Your task to perform on an android device: View the shopping cart on ebay.com. Search for usb-a to usb-b on ebay.com, select the first entry, and add it to the cart. Image 0: 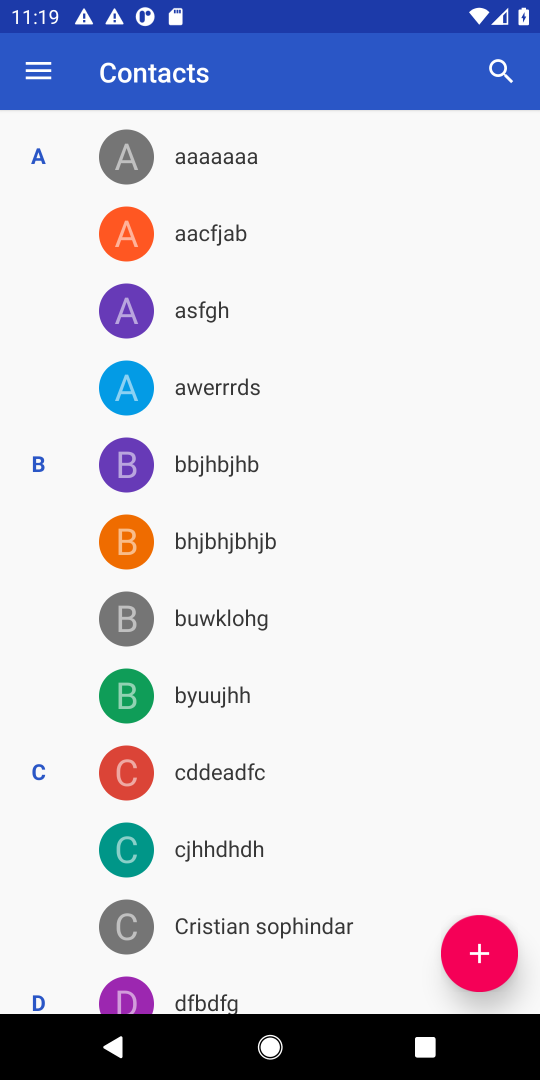
Step 0: press home button
Your task to perform on an android device: View the shopping cart on ebay.com. Search for usb-a to usb-b on ebay.com, select the first entry, and add it to the cart. Image 1: 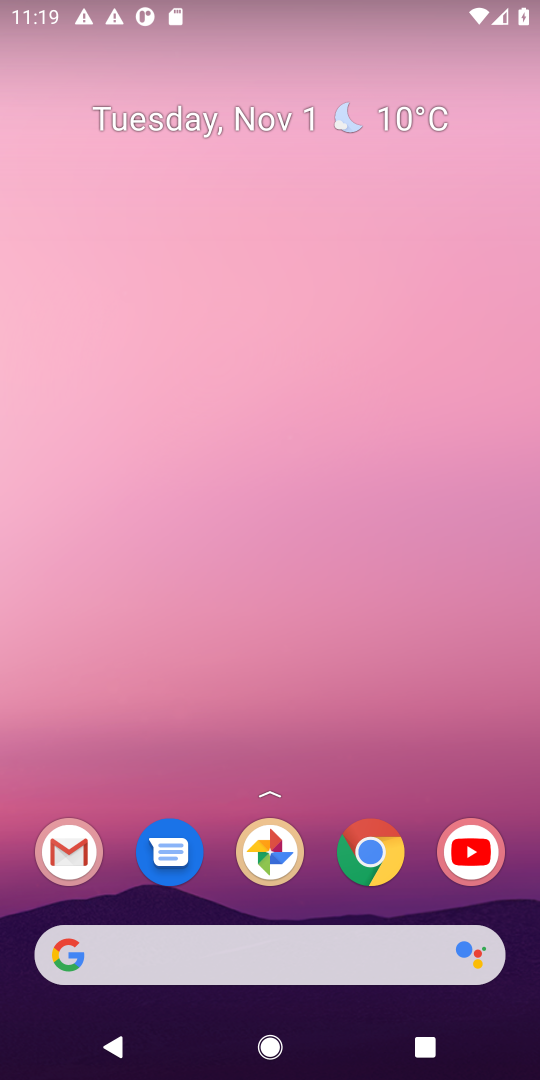
Step 1: click (60, 952)
Your task to perform on an android device: View the shopping cart on ebay.com. Search for usb-a to usb-b on ebay.com, select the first entry, and add it to the cart. Image 2: 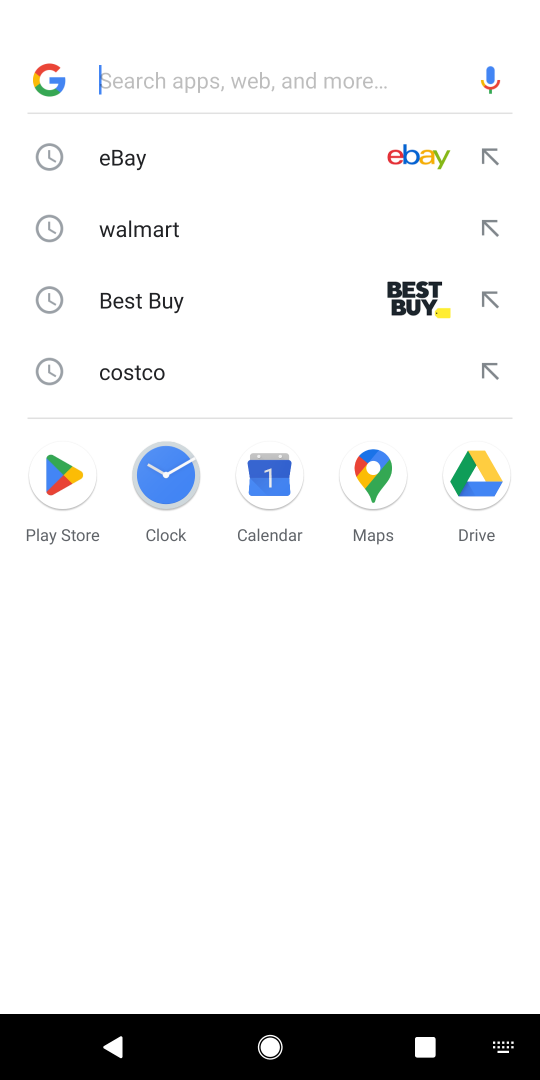
Step 2: click (406, 157)
Your task to perform on an android device: View the shopping cart on ebay.com. Search for usb-a to usb-b on ebay.com, select the first entry, and add it to the cart. Image 3: 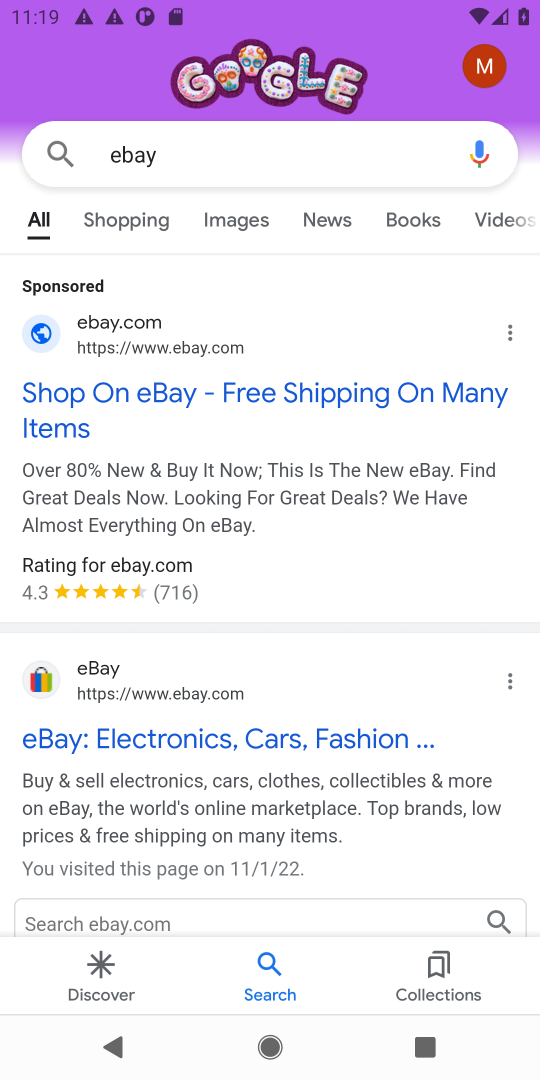
Step 3: click (104, 736)
Your task to perform on an android device: View the shopping cart on ebay.com. Search for usb-a to usb-b on ebay.com, select the first entry, and add it to the cart. Image 4: 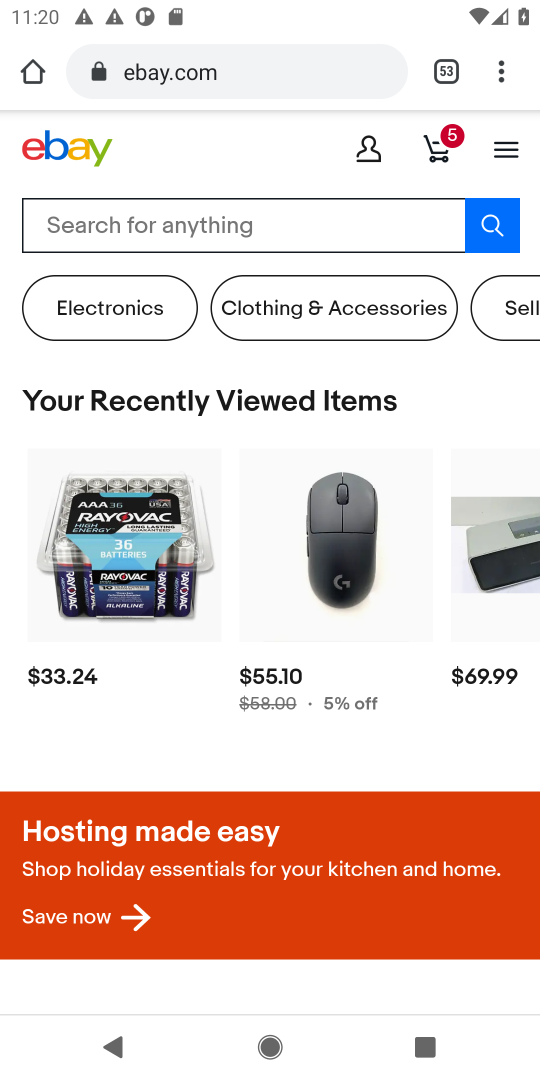
Step 4: click (77, 228)
Your task to perform on an android device: View the shopping cart on ebay.com. Search for usb-a to usb-b on ebay.com, select the first entry, and add it to the cart. Image 5: 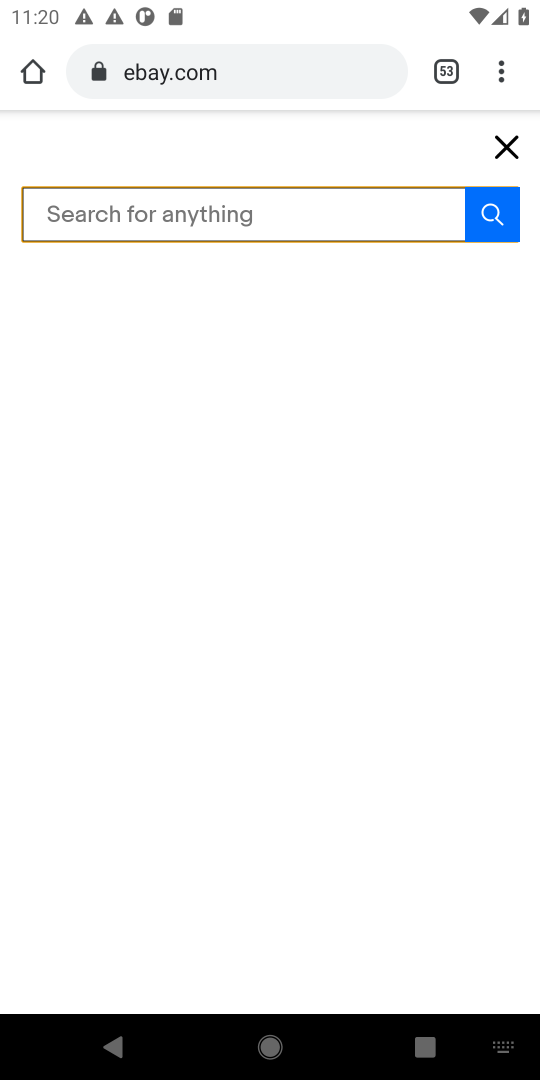
Step 5: type "usb-a to usb-b "
Your task to perform on an android device: View the shopping cart on ebay.com. Search for usb-a to usb-b on ebay.com, select the first entry, and add it to the cart. Image 6: 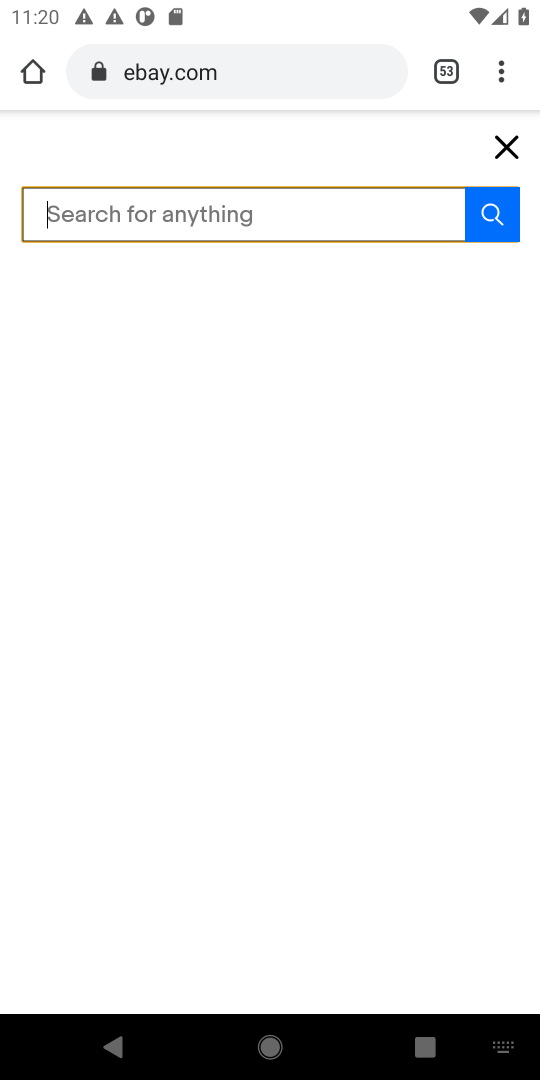
Step 6: click (188, 206)
Your task to perform on an android device: View the shopping cart on ebay.com. Search for usb-a to usb-b on ebay.com, select the first entry, and add it to the cart. Image 7: 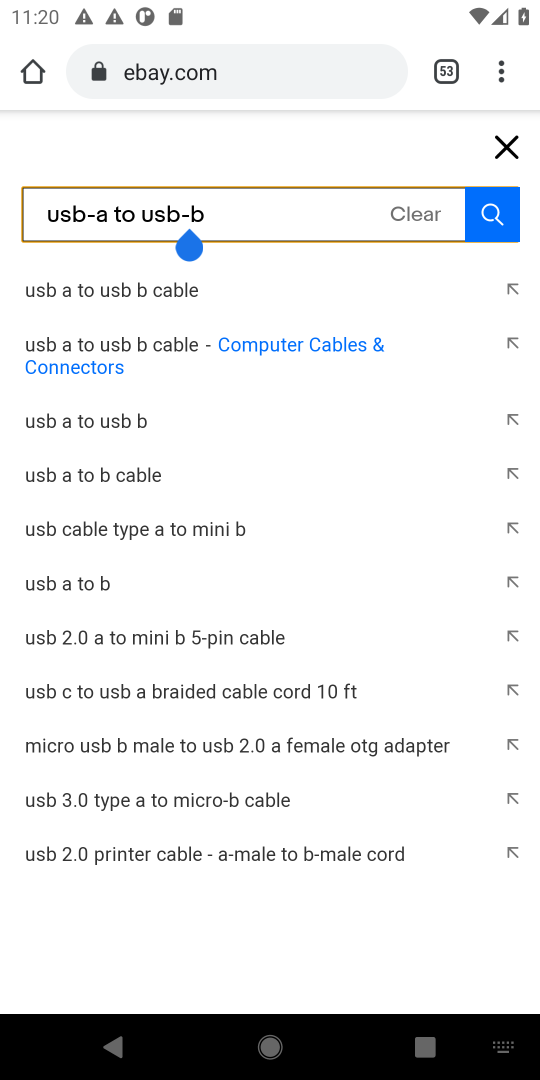
Step 7: press enter
Your task to perform on an android device: View the shopping cart on ebay.com. Search for usb-a to usb-b on ebay.com, select the first entry, and add it to the cart. Image 8: 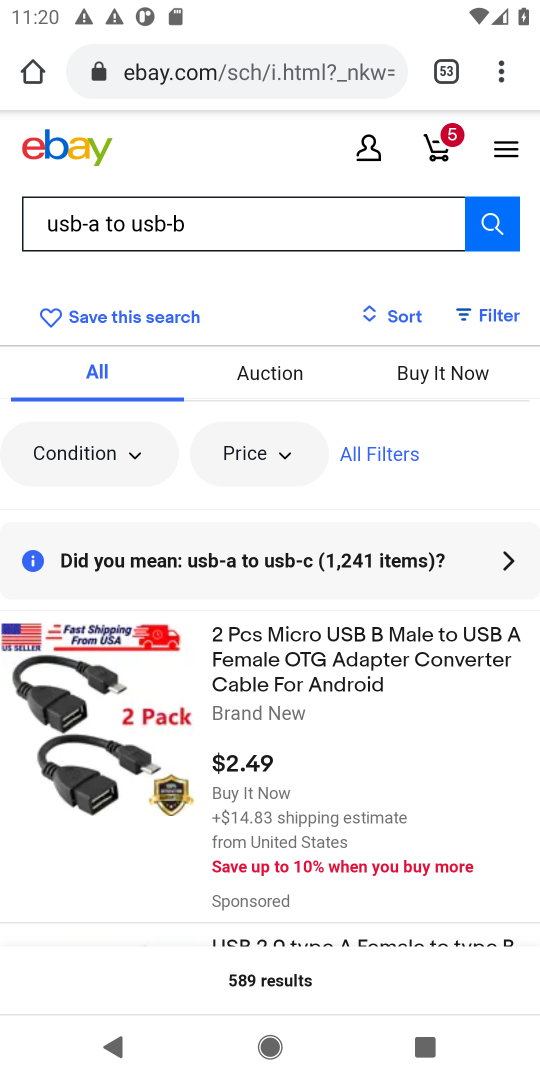
Step 8: drag from (429, 885) to (402, 315)
Your task to perform on an android device: View the shopping cart on ebay.com. Search for usb-a to usb-b on ebay.com, select the first entry, and add it to the cart. Image 9: 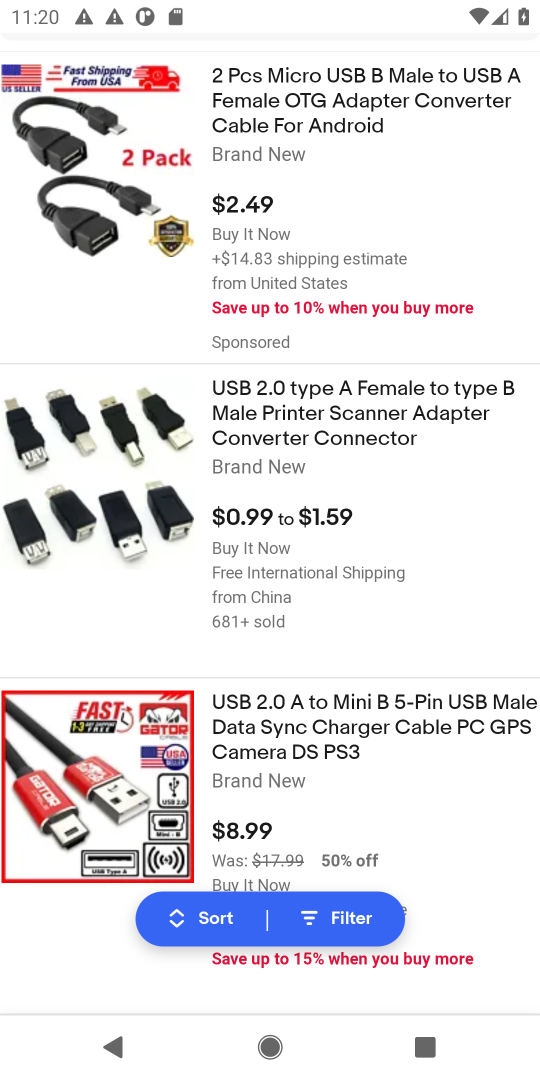
Step 9: click (409, 385)
Your task to perform on an android device: View the shopping cart on ebay.com. Search for usb-a to usb-b on ebay.com, select the first entry, and add it to the cart. Image 10: 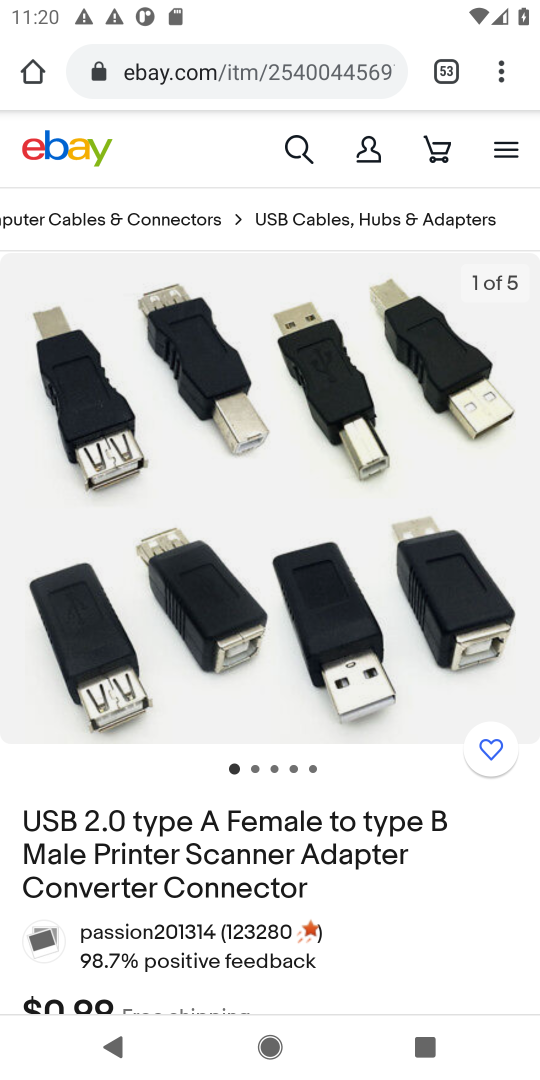
Step 10: drag from (456, 922) to (422, 146)
Your task to perform on an android device: View the shopping cart on ebay.com. Search for usb-a to usb-b on ebay.com, select the first entry, and add it to the cart. Image 11: 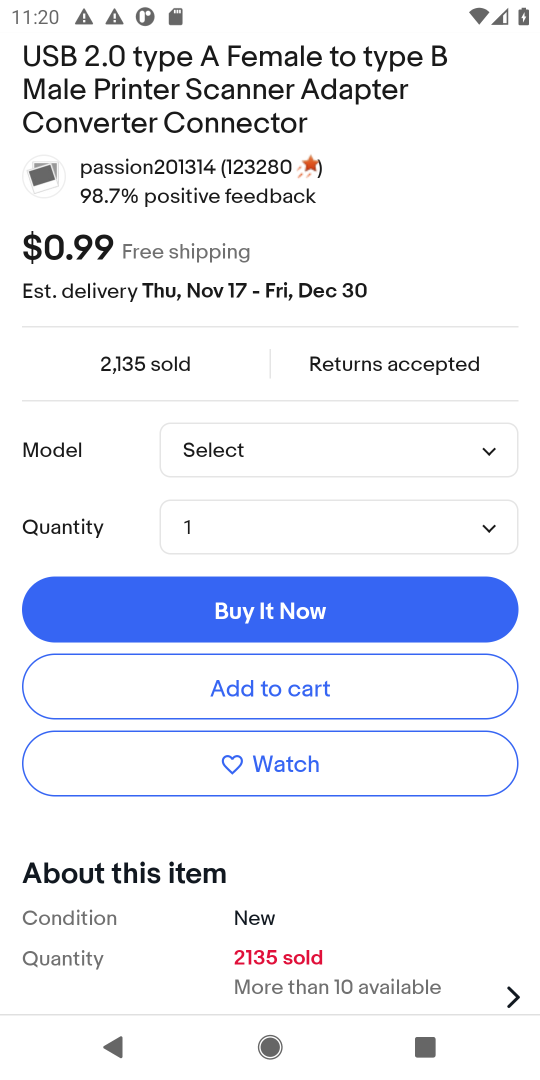
Step 11: click (267, 693)
Your task to perform on an android device: View the shopping cart on ebay.com. Search for usb-a to usb-b on ebay.com, select the first entry, and add it to the cart. Image 12: 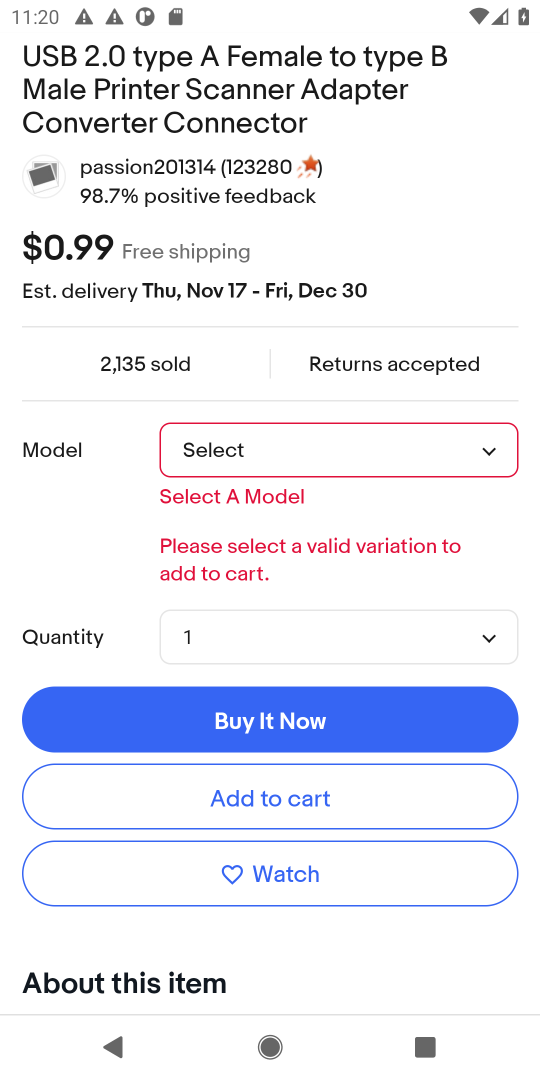
Step 12: click (485, 455)
Your task to perform on an android device: View the shopping cart on ebay.com. Search for usb-a to usb-b on ebay.com, select the first entry, and add it to the cart. Image 13: 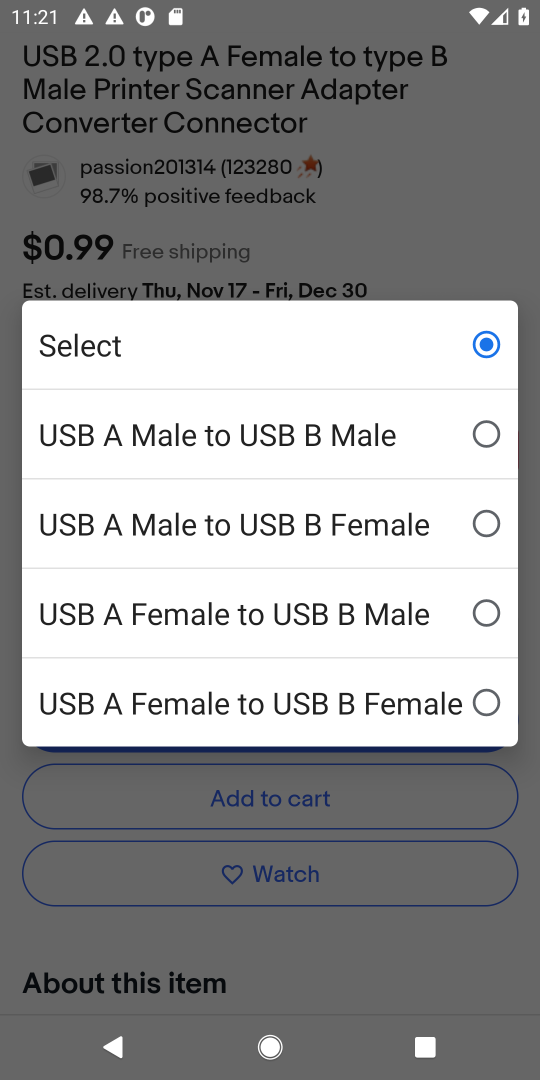
Step 13: click (490, 437)
Your task to perform on an android device: View the shopping cart on ebay.com. Search for usb-a to usb-b on ebay.com, select the first entry, and add it to the cart. Image 14: 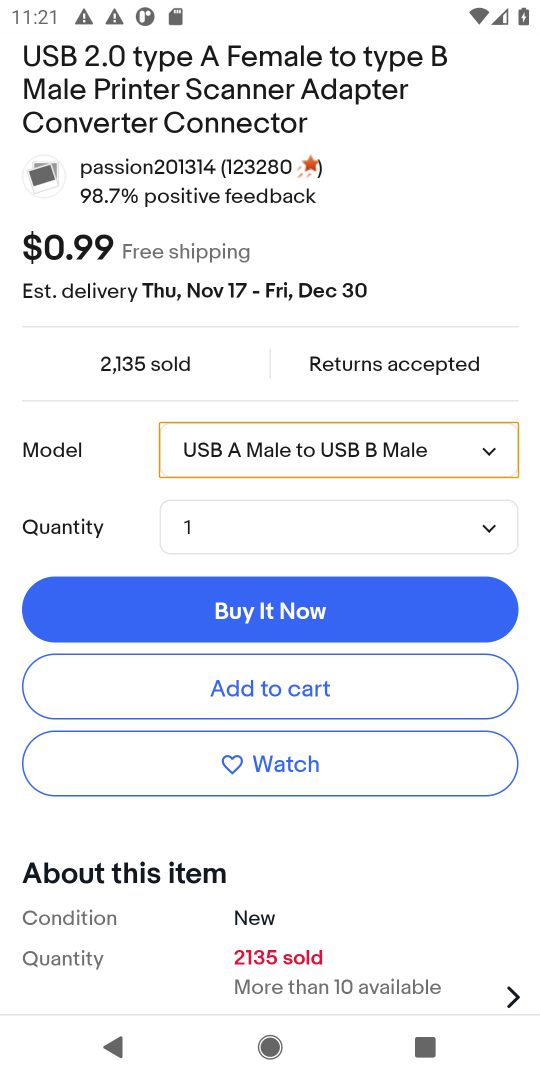
Step 14: click (299, 682)
Your task to perform on an android device: View the shopping cart on ebay.com. Search for usb-a to usb-b on ebay.com, select the first entry, and add it to the cart. Image 15: 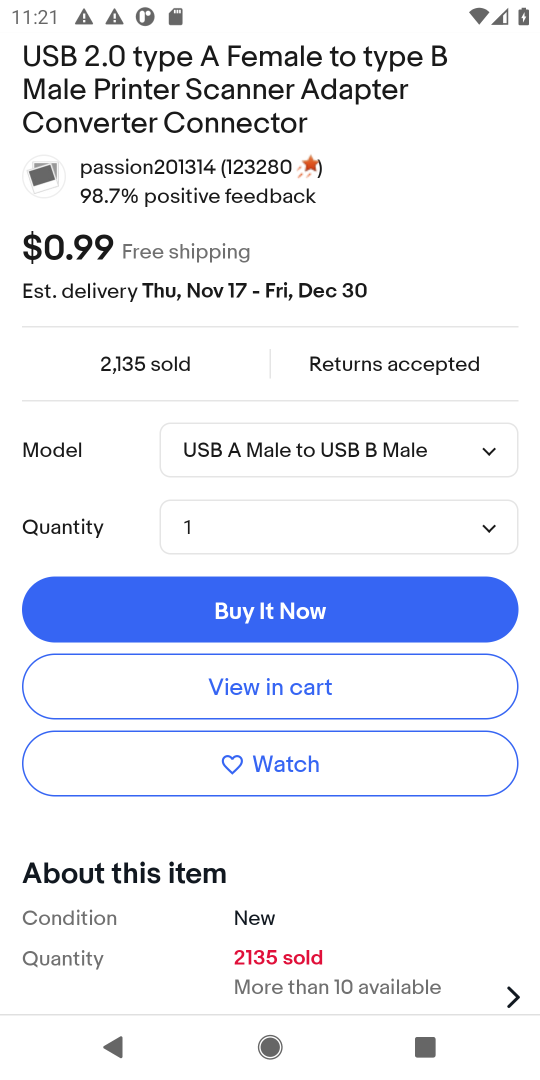
Step 15: task complete